Your task to perform on an android device: Set the phone to "Do not disturb". Image 0: 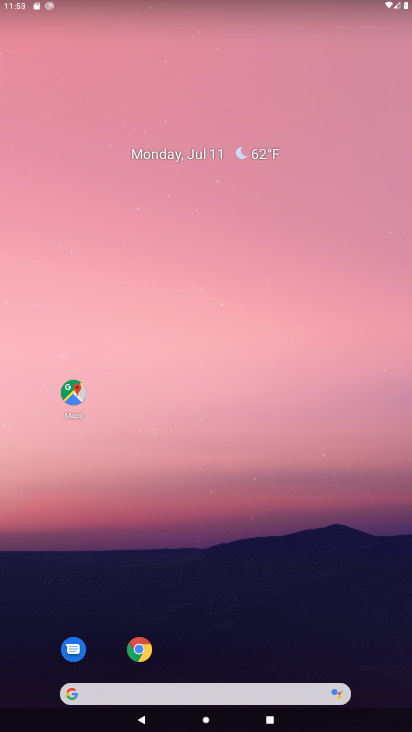
Step 0: drag from (237, 607) to (179, 219)
Your task to perform on an android device: Set the phone to "Do not disturb". Image 1: 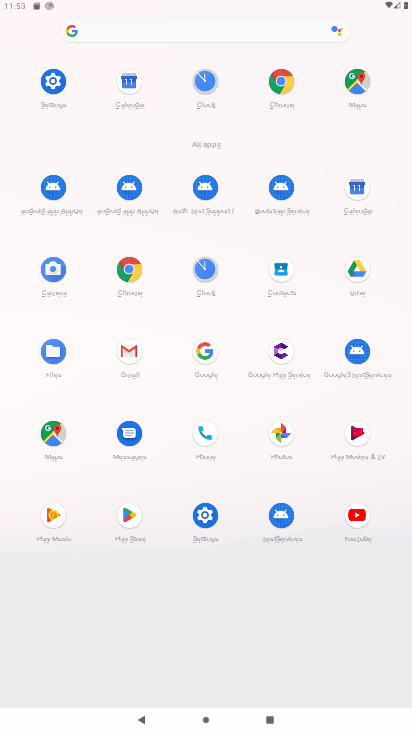
Step 1: click (48, 76)
Your task to perform on an android device: Set the phone to "Do not disturb". Image 2: 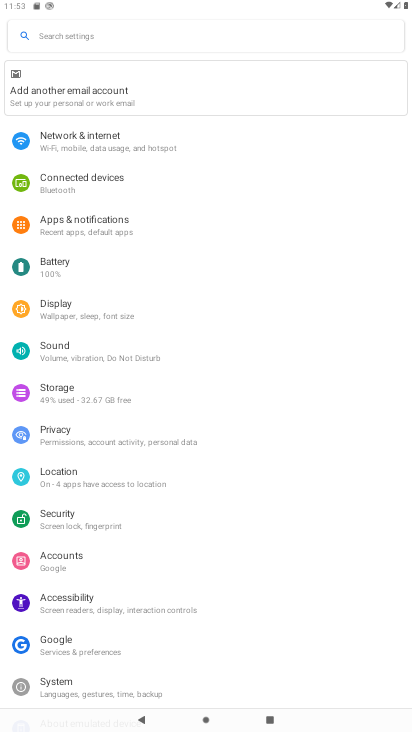
Step 2: click (62, 352)
Your task to perform on an android device: Set the phone to "Do not disturb". Image 3: 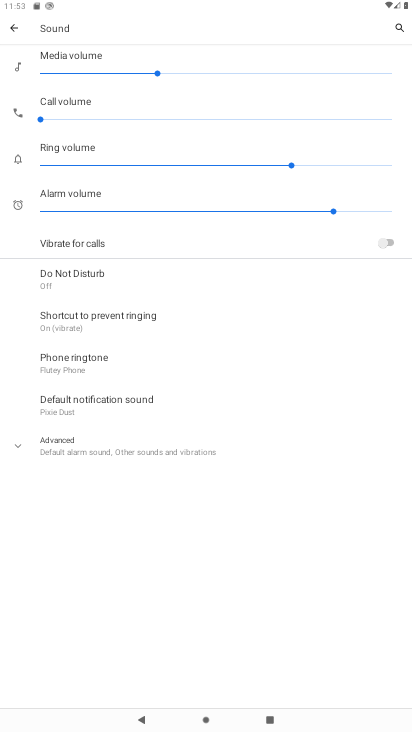
Step 3: click (74, 280)
Your task to perform on an android device: Set the phone to "Do not disturb". Image 4: 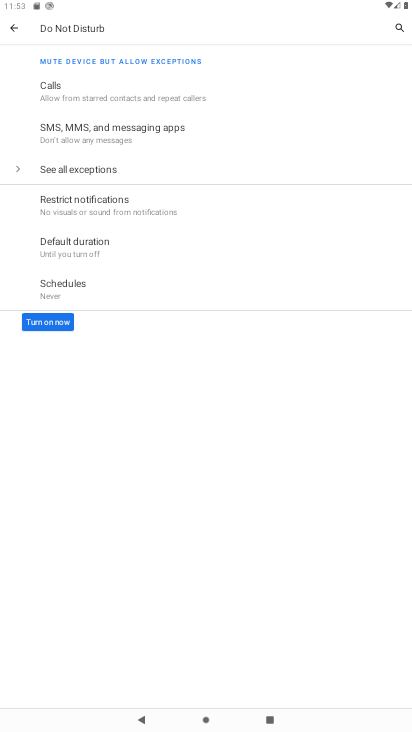
Step 4: click (42, 323)
Your task to perform on an android device: Set the phone to "Do not disturb". Image 5: 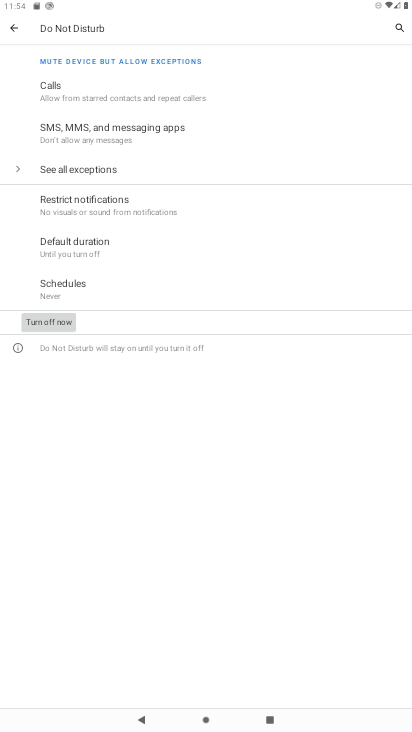
Step 5: task complete